Your task to perform on an android device: Go to privacy settings Image 0: 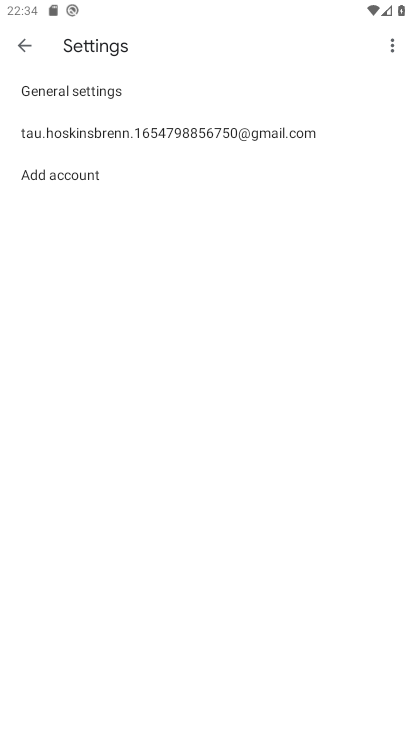
Step 0: drag from (281, 506) to (348, 257)
Your task to perform on an android device: Go to privacy settings Image 1: 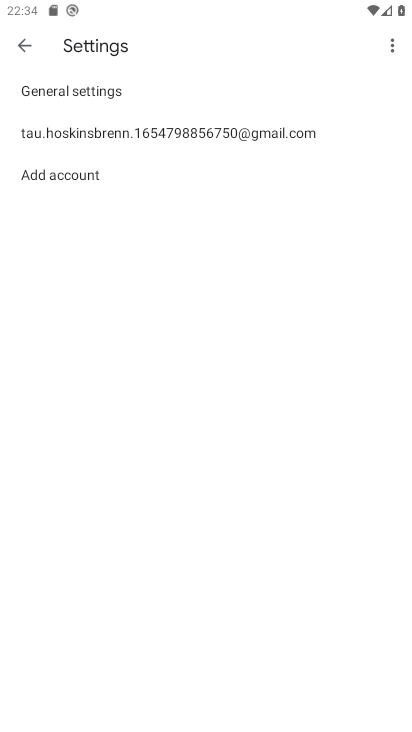
Step 1: press home button
Your task to perform on an android device: Go to privacy settings Image 2: 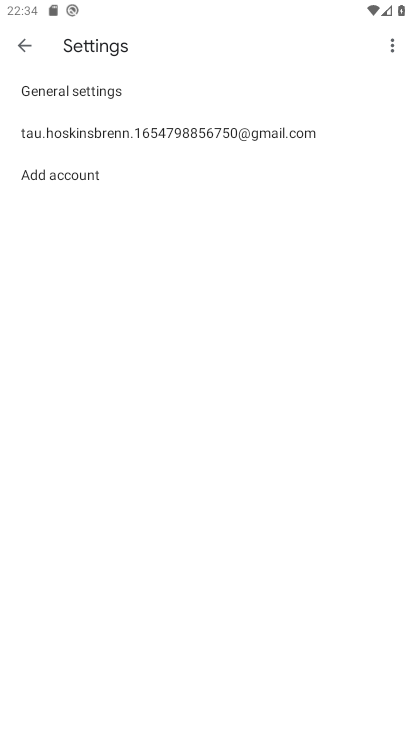
Step 2: press home button
Your task to perform on an android device: Go to privacy settings Image 3: 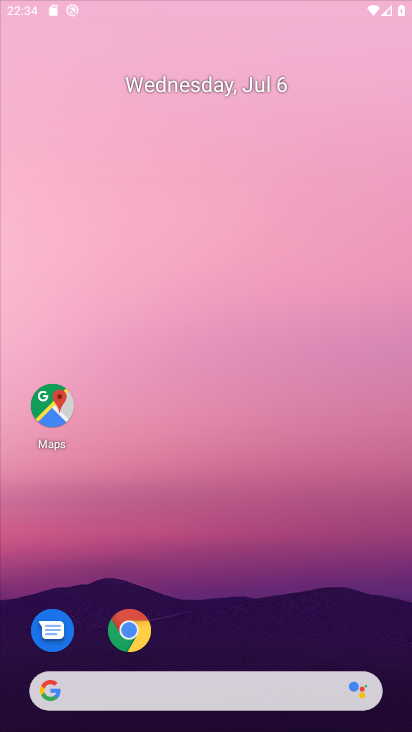
Step 3: drag from (192, 547) to (236, 244)
Your task to perform on an android device: Go to privacy settings Image 4: 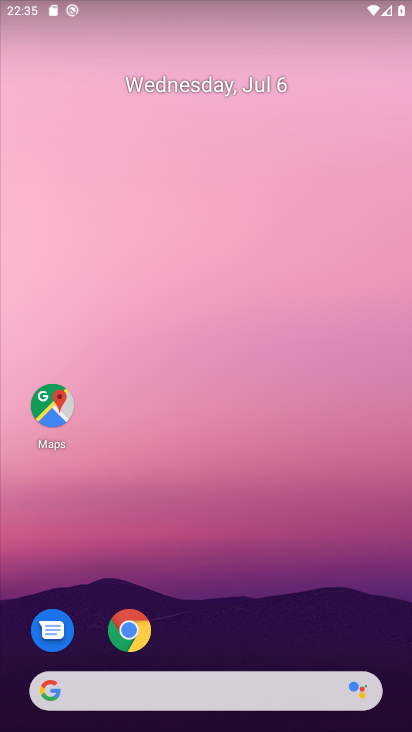
Step 4: drag from (202, 583) to (215, 103)
Your task to perform on an android device: Go to privacy settings Image 5: 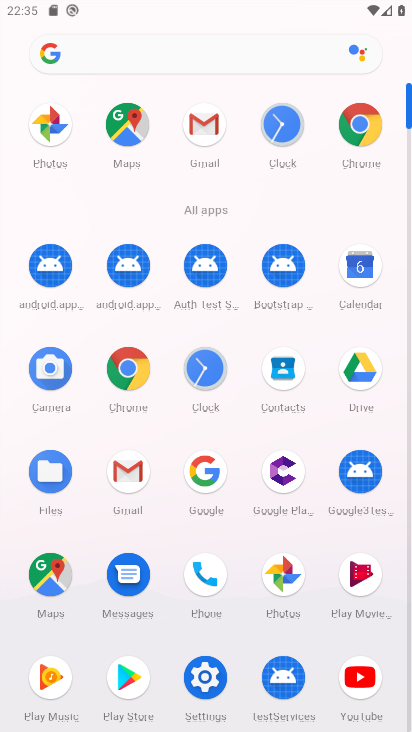
Step 5: click (203, 677)
Your task to perform on an android device: Go to privacy settings Image 6: 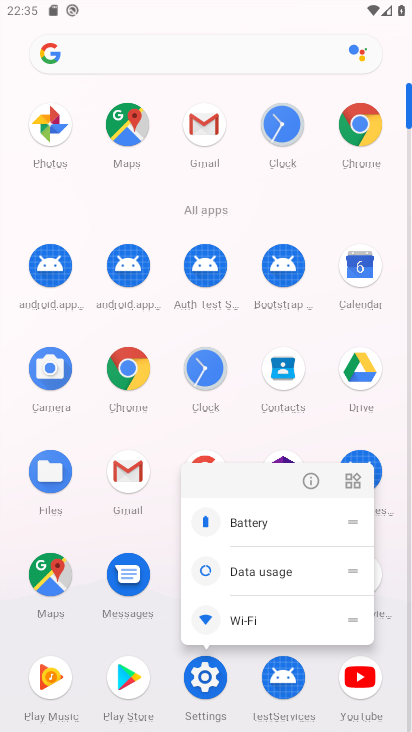
Step 6: click (301, 474)
Your task to perform on an android device: Go to privacy settings Image 7: 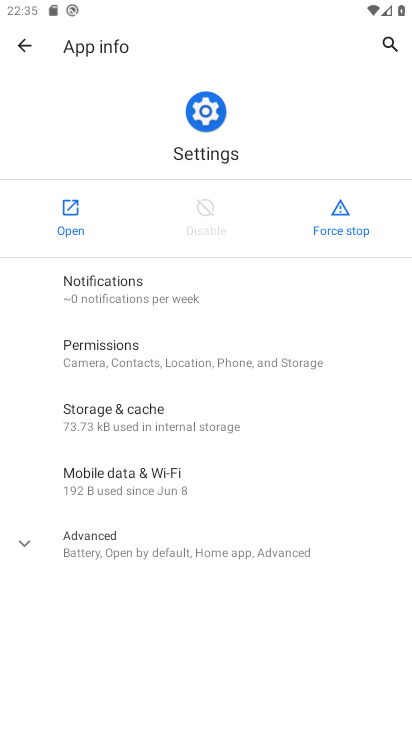
Step 7: click (87, 198)
Your task to perform on an android device: Go to privacy settings Image 8: 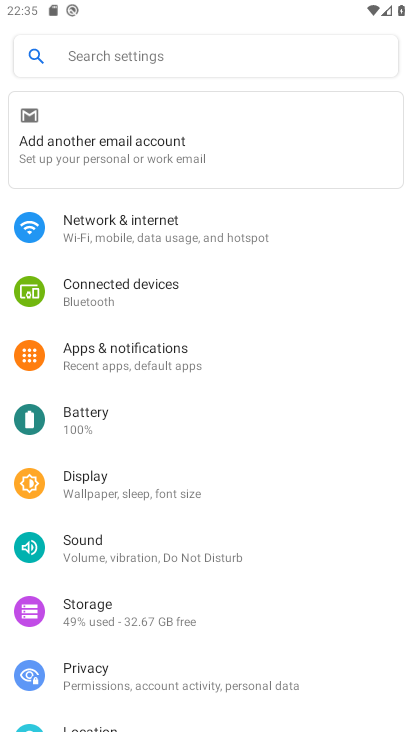
Step 8: drag from (192, 609) to (214, 255)
Your task to perform on an android device: Go to privacy settings Image 9: 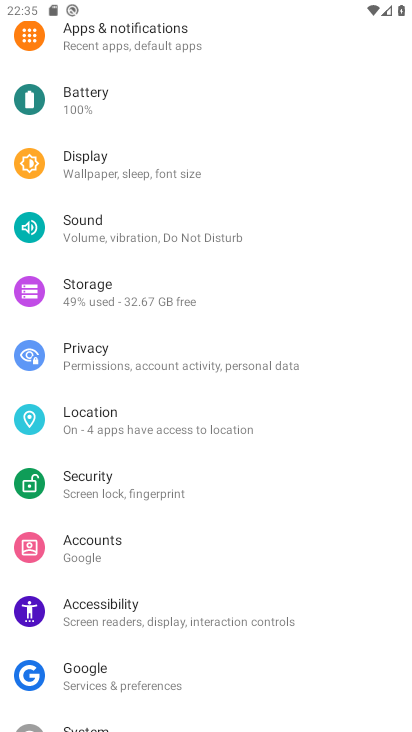
Step 9: click (106, 358)
Your task to perform on an android device: Go to privacy settings Image 10: 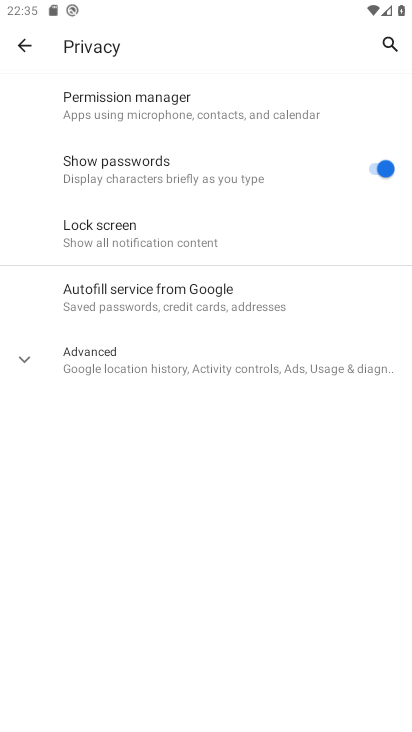
Step 10: task complete